Your task to perform on an android device: find which apps use the phone's location Image 0: 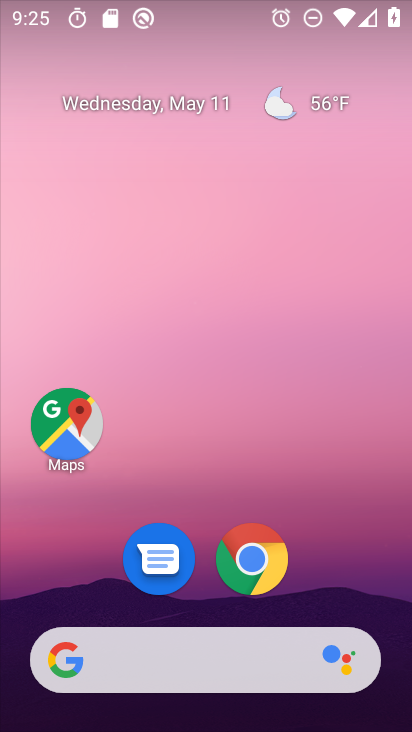
Step 0: drag from (327, 593) to (316, 250)
Your task to perform on an android device: find which apps use the phone's location Image 1: 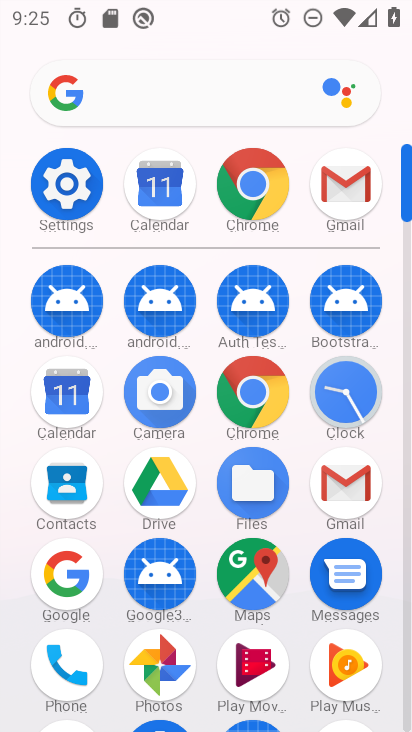
Step 1: click (63, 172)
Your task to perform on an android device: find which apps use the phone's location Image 2: 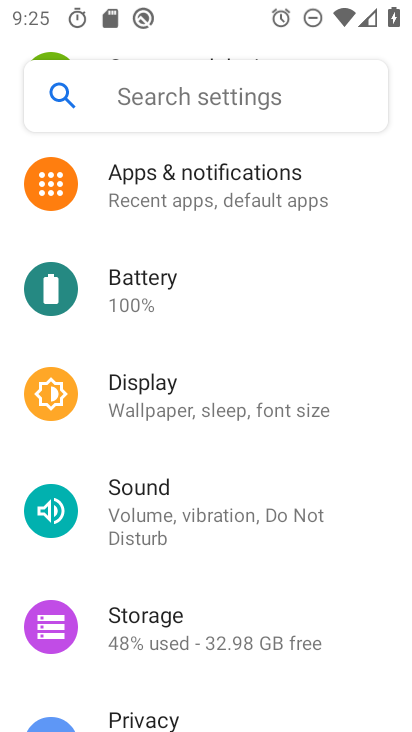
Step 2: drag from (376, 601) to (369, 496)
Your task to perform on an android device: find which apps use the phone's location Image 3: 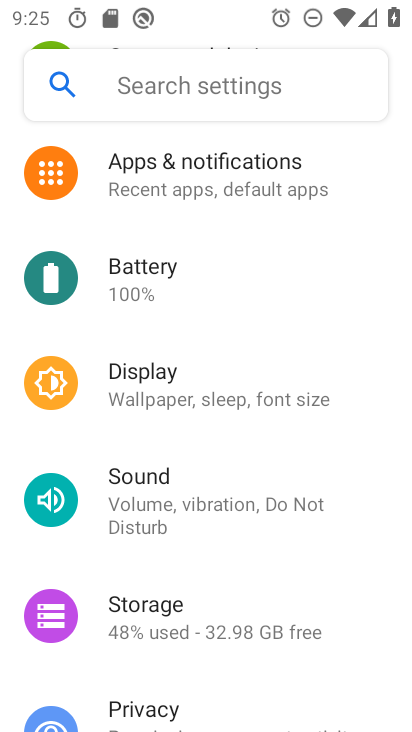
Step 3: drag from (294, 666) to (299, 389)
Your task to perform on an android device: find which apps use the phone's location Image 4: 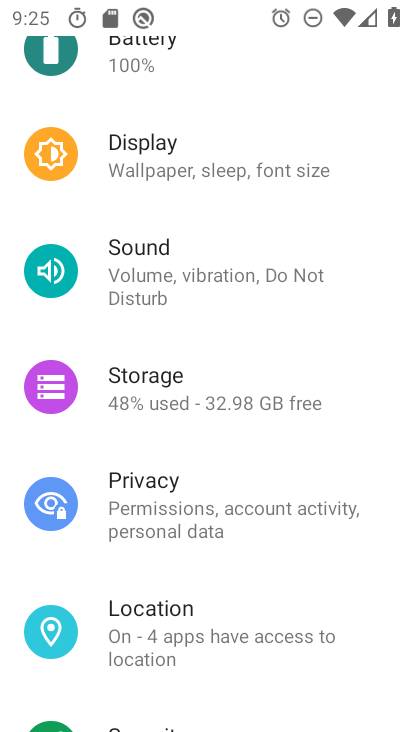
Step 4: click (251, 625)
Your task to perform on an android device: find which apps use the phone's location Image 5: 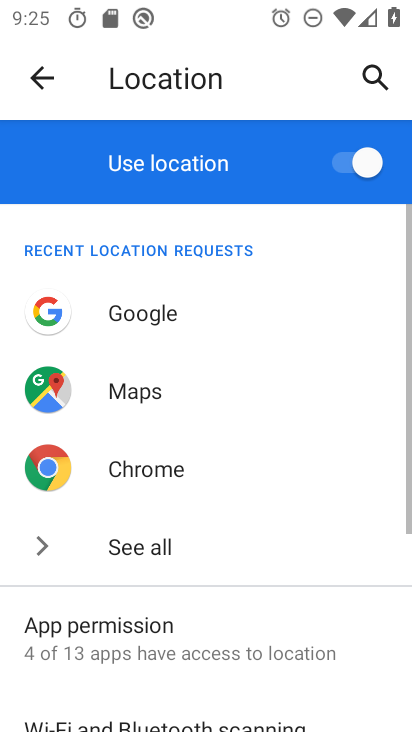
Step 5: click (178, 637)
Your task to perform on an android device: find which apps use the phone's location Image 6: 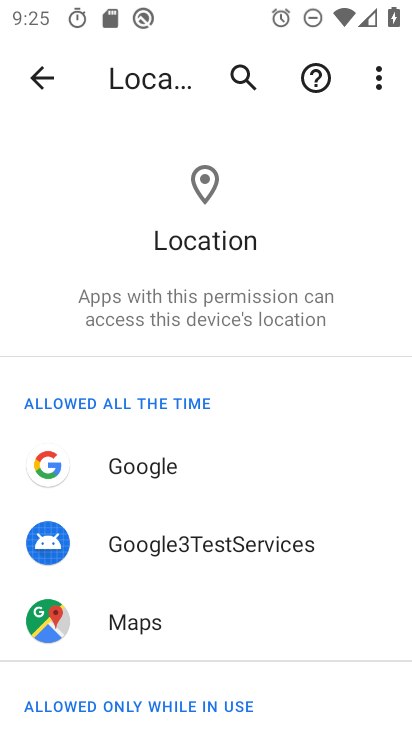
Step 6: task complete